Your task to perform on an android device: change alarm snooze length Image 0: 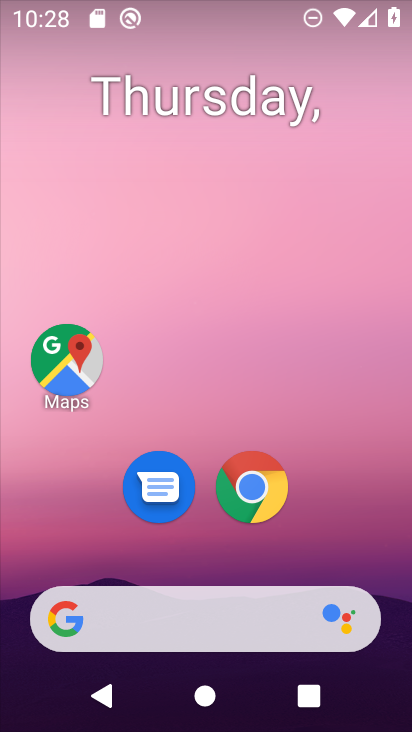
Step 0: drag from (327, 557) to (173, 155)
Your task to perform on an android device: change alarm snooze length Image 1: 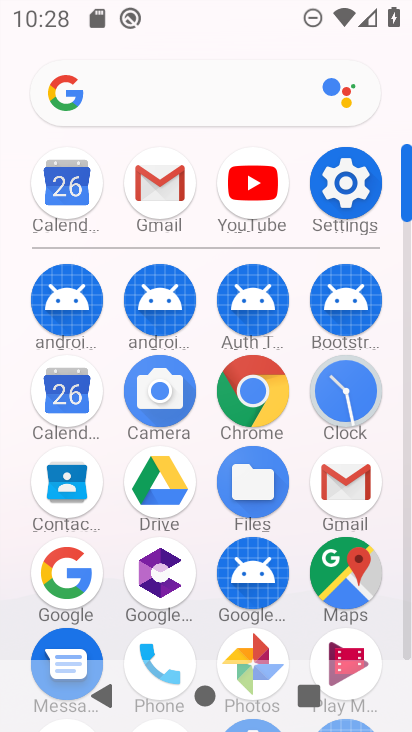
Step 1: click (347, 388)
Your task to perform on an android device: change alarm snooze length Image 2: 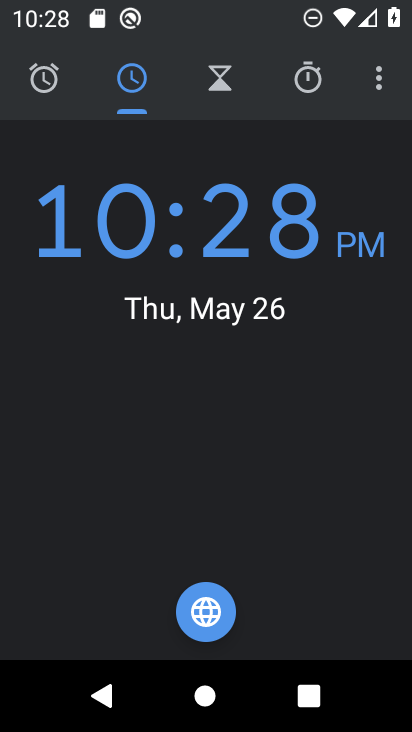
Step 2: click (382, 80)
Your task to perform on an android device: change alarm snooze length Image 3: 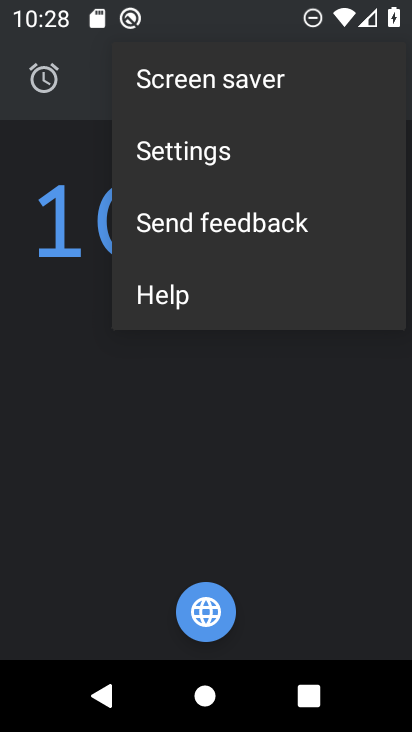
Step 3: click (221, 161)
Your task to perform on an android device: change alarm snooze length Image 4: 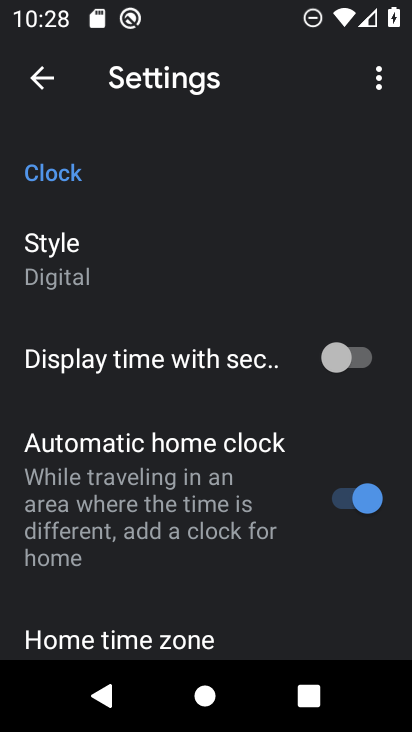
Step 4: drag from (191, 514) to (170, 202)
Your task to perform on an android device: change alarm snooze length Image 5: 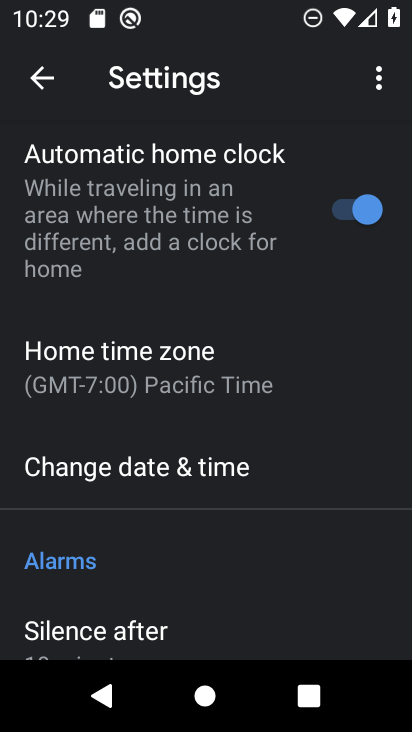
Step 5: drag from (192, 597) to (162, 130)
Your task to perform on an android device: change alarm snooze length Image 6: 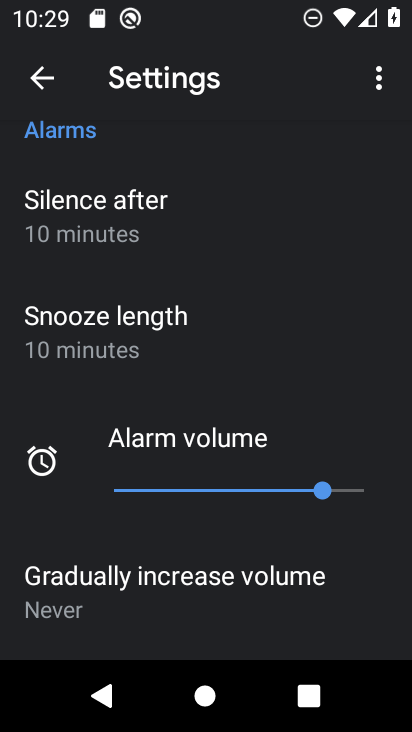
Step 6: click (88, 339)
Your task to perform on an android device: change alarm snooze length Image 7: 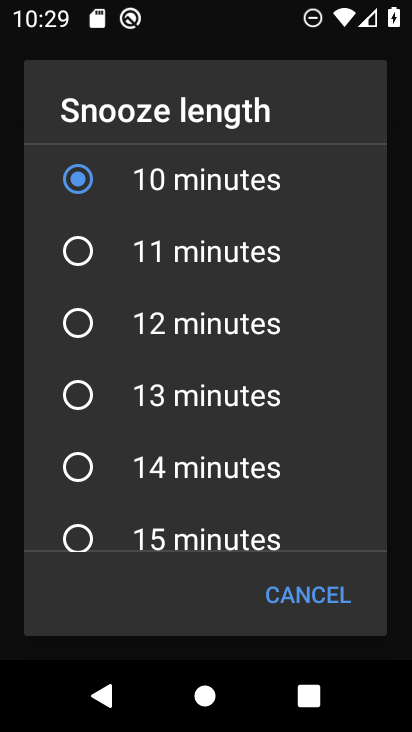
Step 7: click (79, 539)
Your task to perform on an android device: change alarm snooze length Image 8: 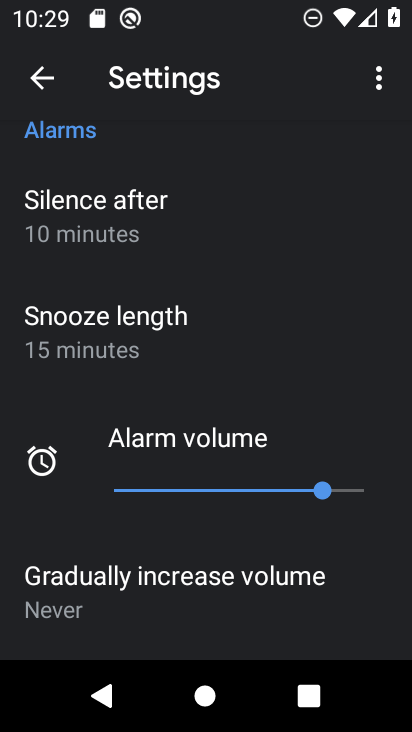
Step 8: task complete